Your task to perform on an android device: allow notifications from all sites in the chrome app Image 0: 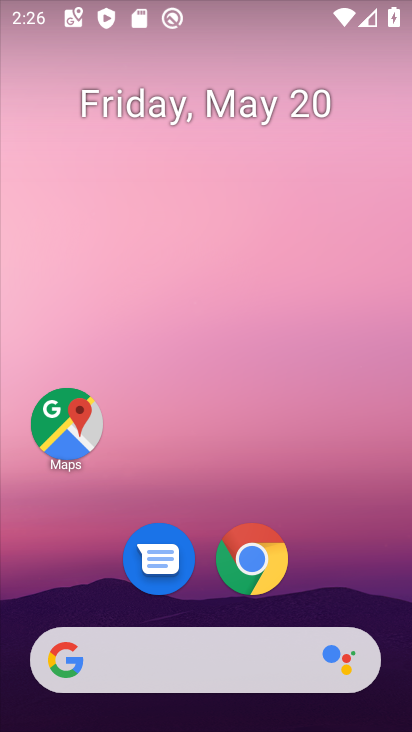
Step 0: click (256, 542)
Your task to perform on an android device: allow notifications from all sites in the chrome app Image 1: 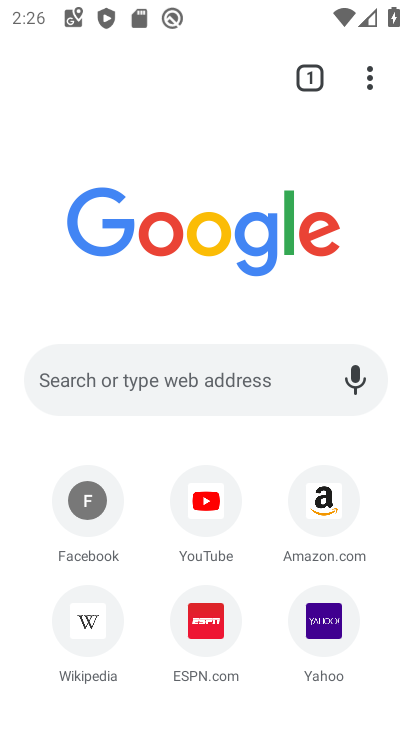
Step 1: click (368, 75)
Your task to perform on an android device: allow notifications from all sites in the chrome app Image 2: 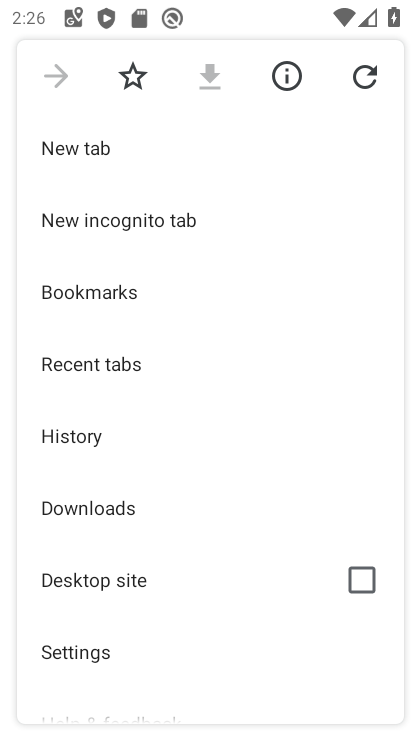
Step 2: click (108, 645)
Your task to perform on an android device: allow notifications from all sites in the chrome app Image 3: 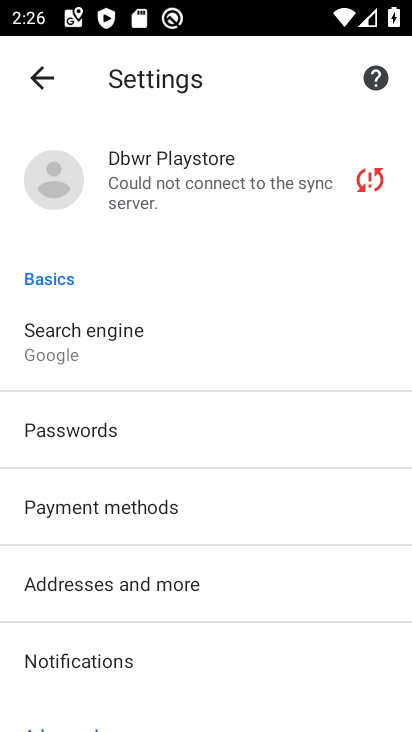
Step 3: click (143, 654)
Your task to perform on an android device: allow notifications from all sites in the chrome app Image 4: 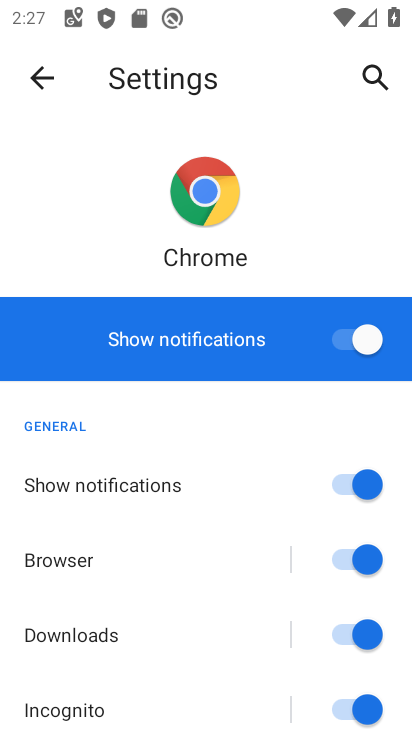
Step 4: task complete